Your task to perform on an android device: open a bookmark in the chrome app Image 0: 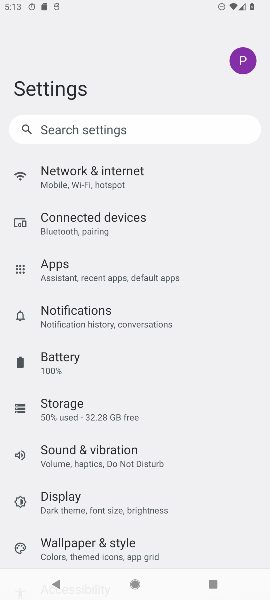
Step 0: press back button
Your task to perform on an android device: open a bookmark in the chrome app Image 1: 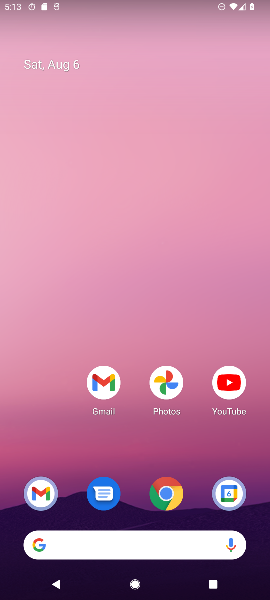
Step 1: drag from (134, 498) to (83, 282)
Your task to perform on an android device: open a bookmark in the chrome app Image 2: 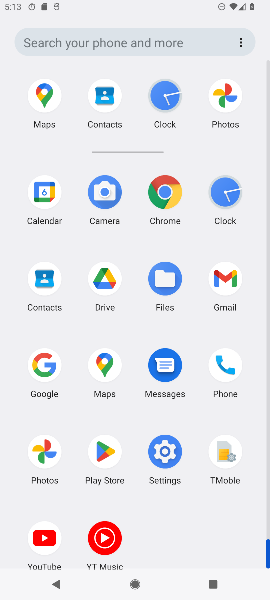
Step 2: click (156, 203)
Your task to perform on an android device: open a bookmark in the chrome app Image 3: 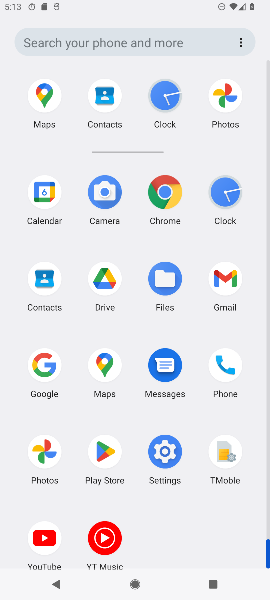
Step 3: click (156, 203)
Your task to perform on an android device: open a bookmark in the chrome app Image 4: 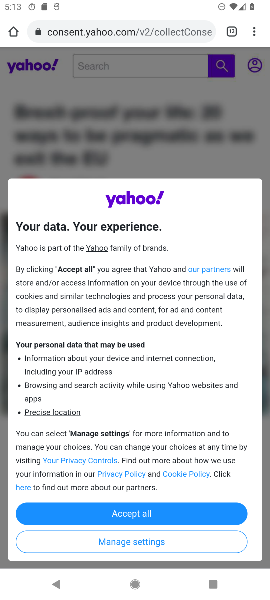
Step 4: click (255, 35)
Your task to perform on an android device: open a bookmark in the chrome app Image 5: 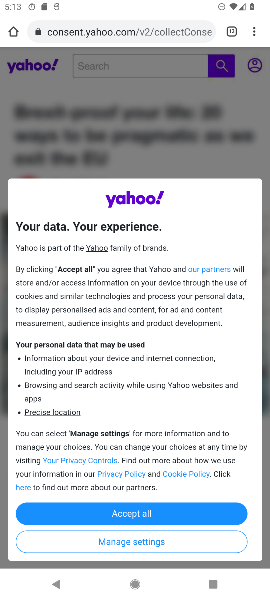
Step 5: click (252, 36)
Your task to perform on an android device: open a bookmark in the chrome app Image 6: 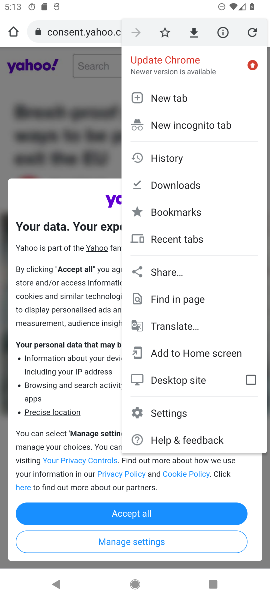
Step 6: click (170, 209)
Your task to perform on an android device: open a bookmark in the chrome app Image 7: 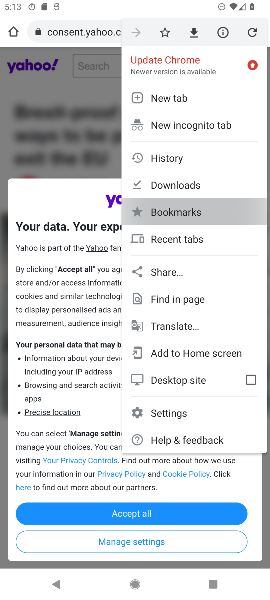
Step 7: click (182, 213)
Your task to perform on an android device: open a bookmark in the chrome app Image 8: 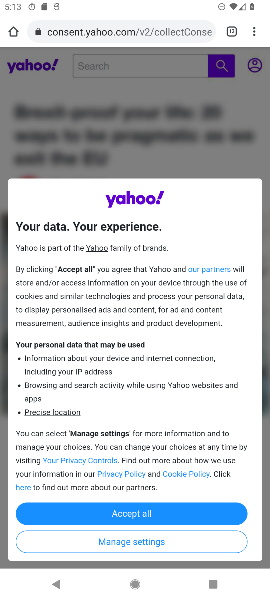
Step 8: click (182, 214)
Your task to perform on an android device: open a bookmark in the chrome app Image 9: 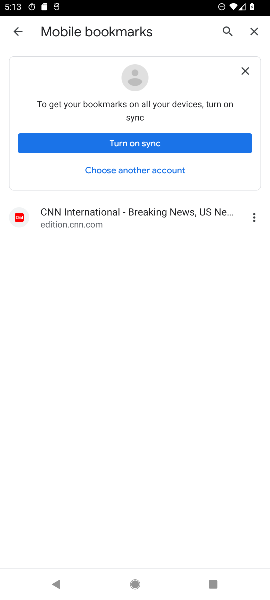
Step 9: click (236, 66)
Your task to perform on an android device: open a bookmark in the chrome app Image 10: 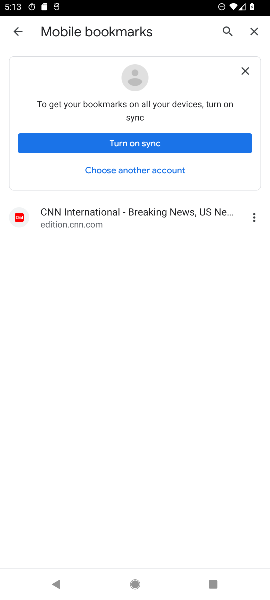
Step 10: task complete